Your task to perform on an android device: toggle airplane mode Image 0: 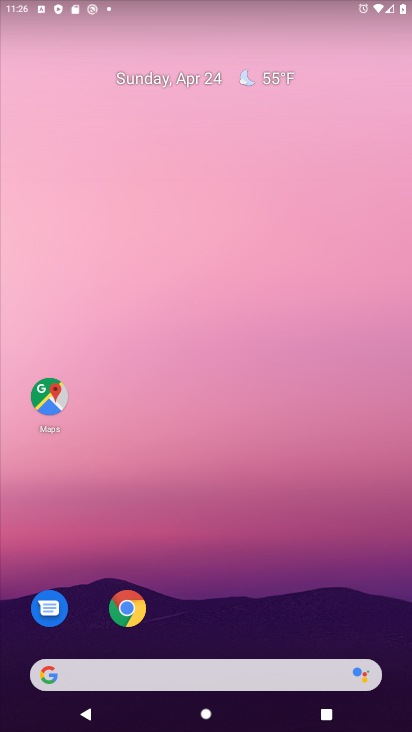
Step 0: drag from (385, 635) to (317, 91)
Your task to perform on an android device: toggle airplane mode Image 1: 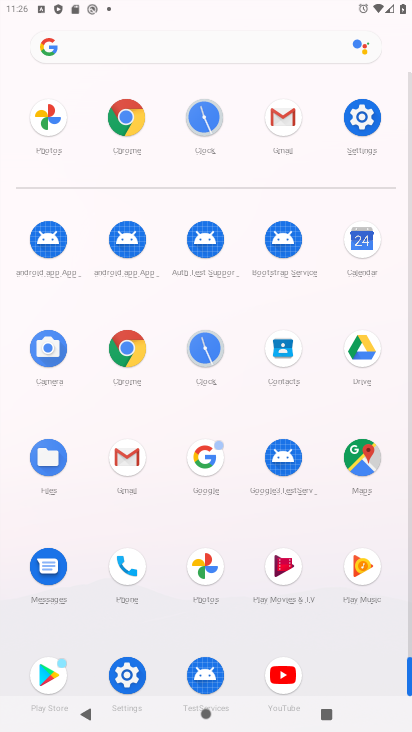
Step 1: click (125, 674)
Your task to perform on an android device: toggle airplane mode Image 2: 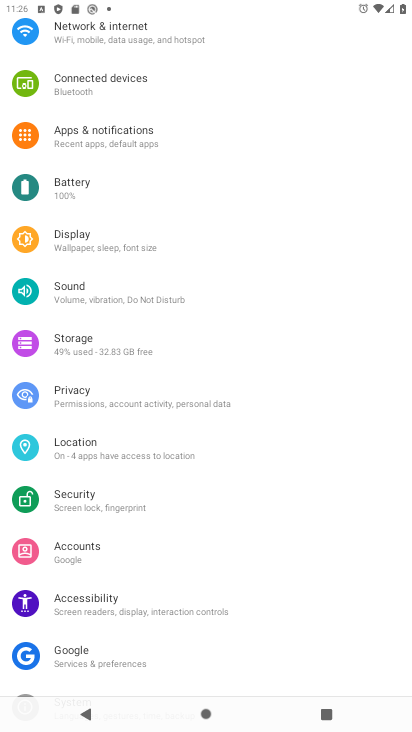
Step 2: drag from (271, 178) to (281, 479)
Your task to perform on an android device: toggle airplane mode Image 3: 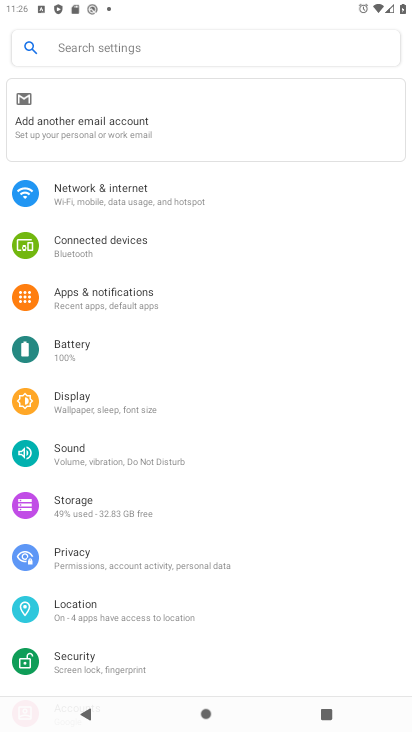
Step 3: click (84, 190)
Your task to perform on an android device: toggle airplane mode Image 4: 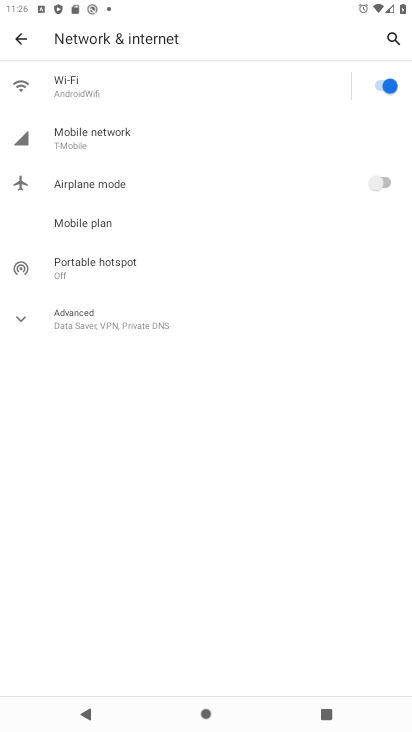
Step 4: click (384, 177)
Your task to perform on an android device: toggle airplane mode Image 5: 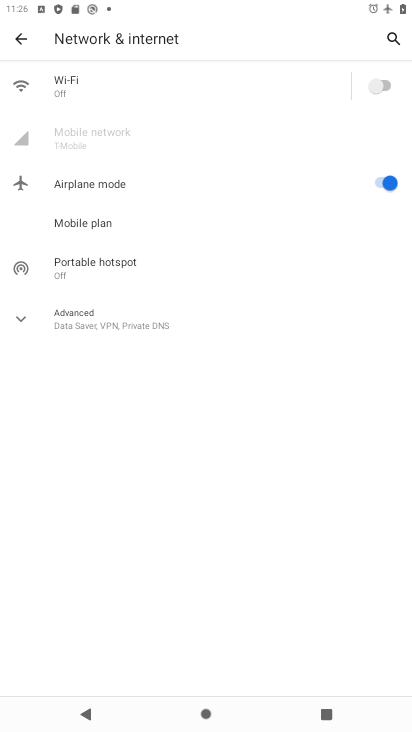
Step 5: task complete